Your task to perform on an android device: open device folders in google photos Image 0: 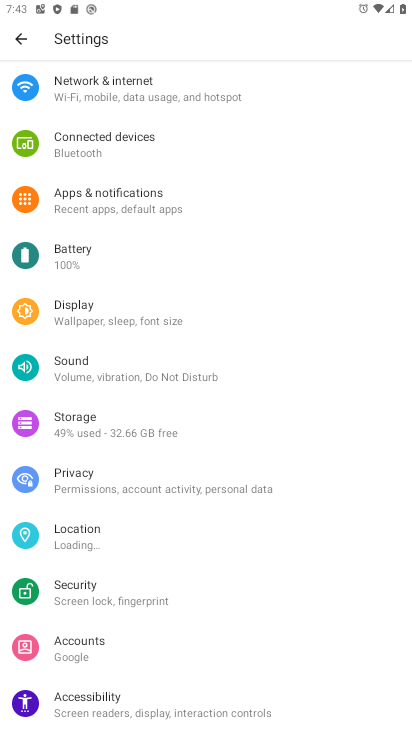
Step 0: press home button
Your task to perform on an android device: open device folders in google photos Image 1: 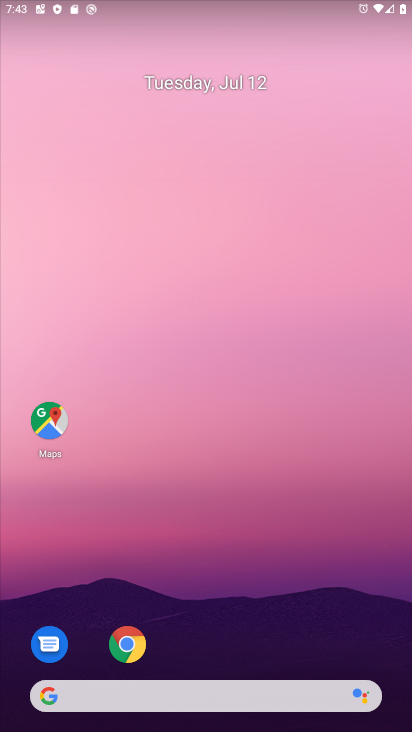
Step 1: drag from (236, 668) to (277, 426)
Your task to perform on an android device: open device folders in google photos Image 2: 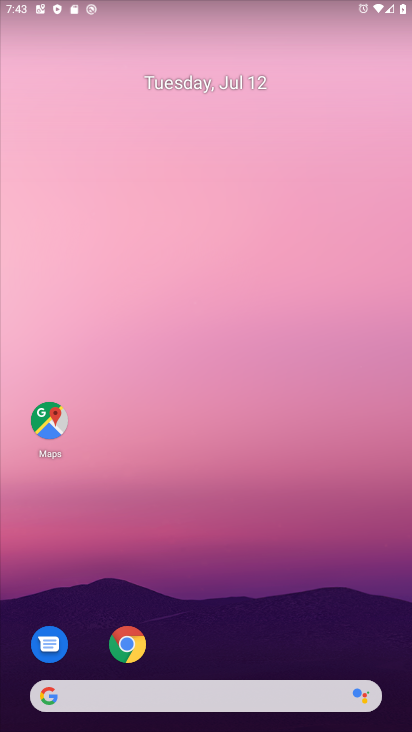
Step 2: drag from (215, 644) to (255, 286)
Your task to perform on an android device: open device folders in google photos Image 3: 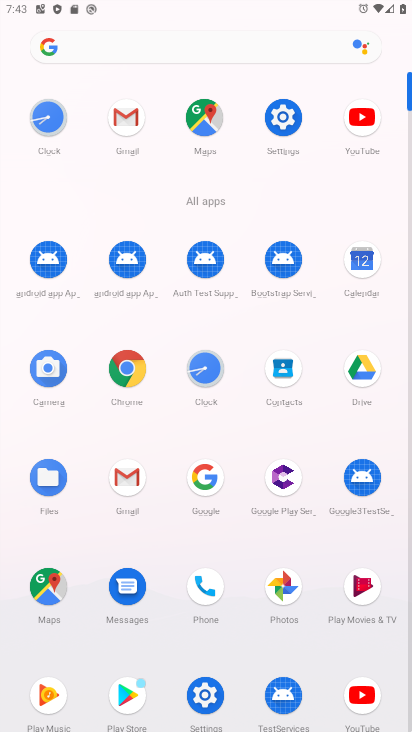
Step 3: click (270, 591)
Your task to perform on an android device: open device folders in google photos Image 4: 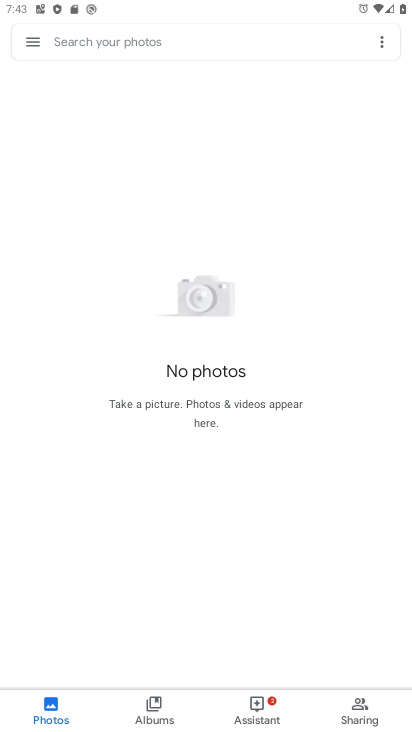
Step 4: click (34, 41)
Your task to perform on an android device: open device folders in google photos Image 5: 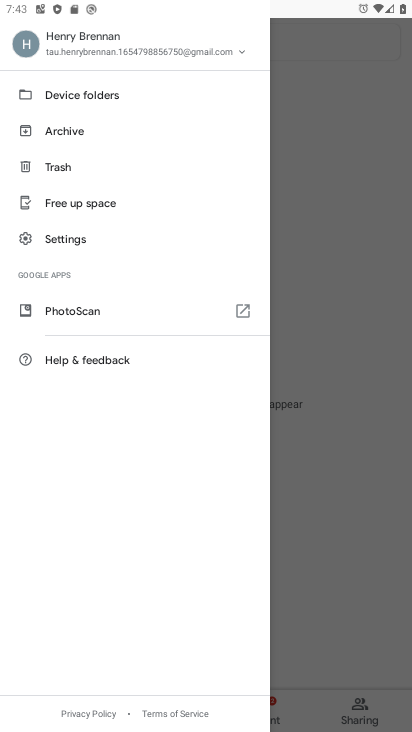
Step 5: click (61, 105)
Your task to perform on an android device: open device folders in google photos Image 6: 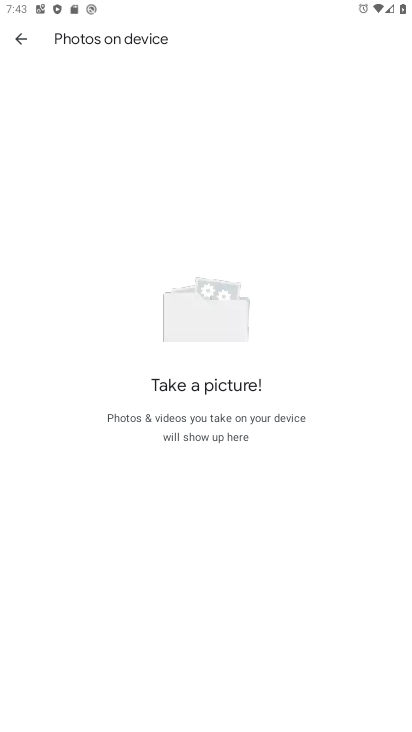
Step 6: task complete